Your task to perform on an android device: Show me popular videos on Youtube Image 0: 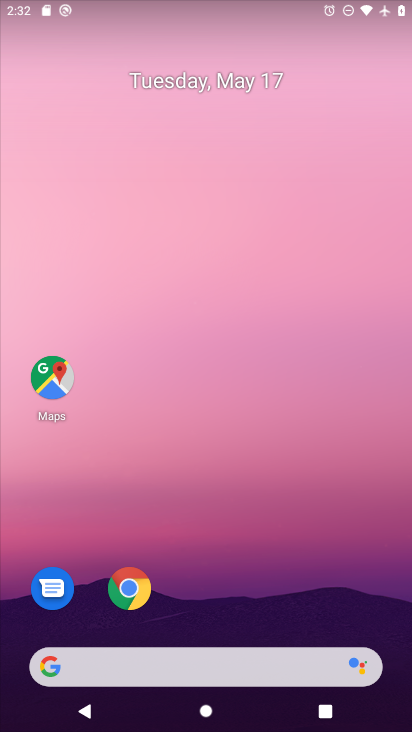
Step 0: drag from (186, 572) to (128, 82)
Your task to perform on an android device: Show me popular videos on Youtube Image 1: 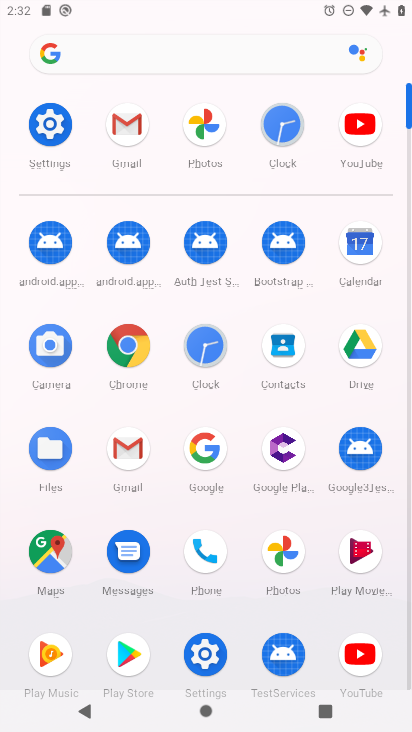
Step 1: click (352, 134)
Your task to perform on an android device: Show me popular videos on Youtube Image 2: 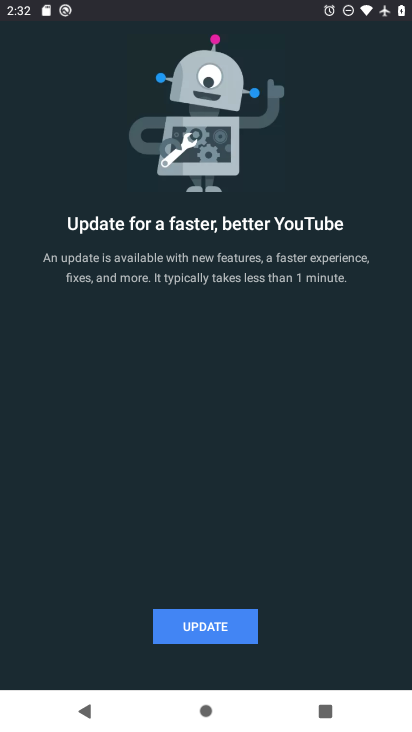
Step 2: click (200, 640)
Your task to perform on an android device: Show me popular videos on Youtube Image 3: 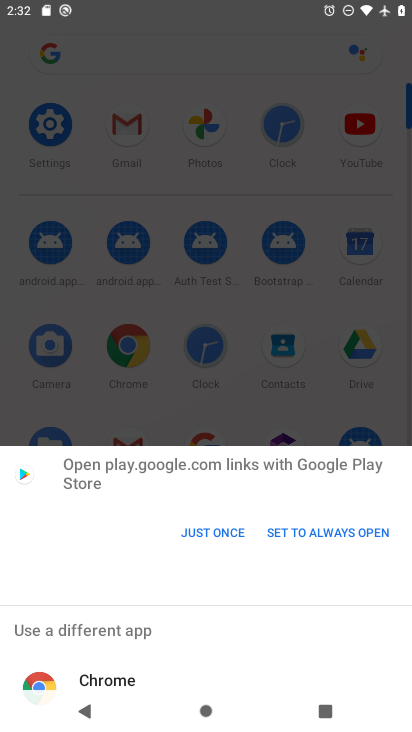
Step 3: click (212, 528)
Your task to perform on an android device: Show me popular videos on Youtube Image 4: 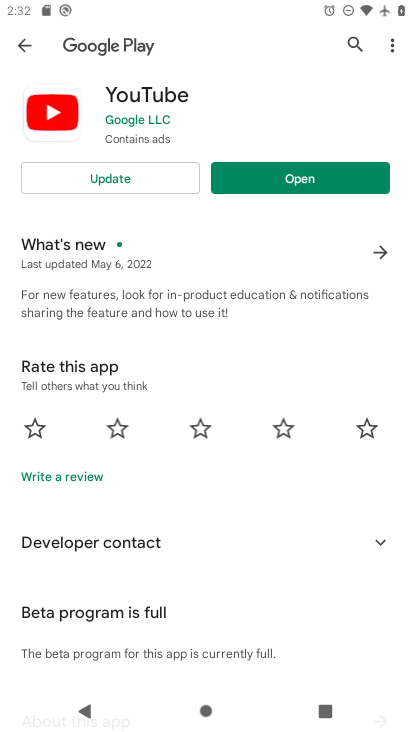
Step 4: click (112, 171)
Your task to perform on an android device: Show me popular videos on Youtube Image 5: 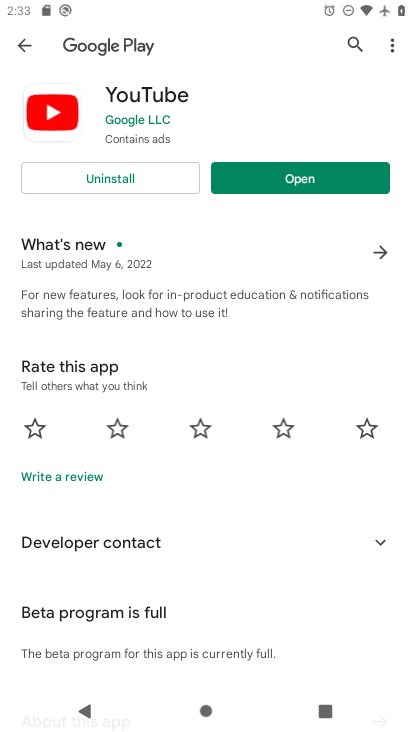
Step 5: click (224, 190)
Your task to perform on an android device: Show me popular videos on Youtube Image 6: 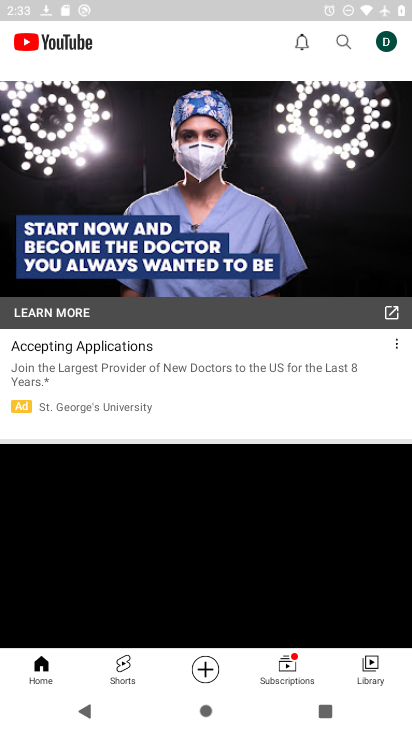
Step 6: drag from (89, 142) to (104, 347)
Your task to perform on an android device: Show me popular videos on Youtube Image 7: 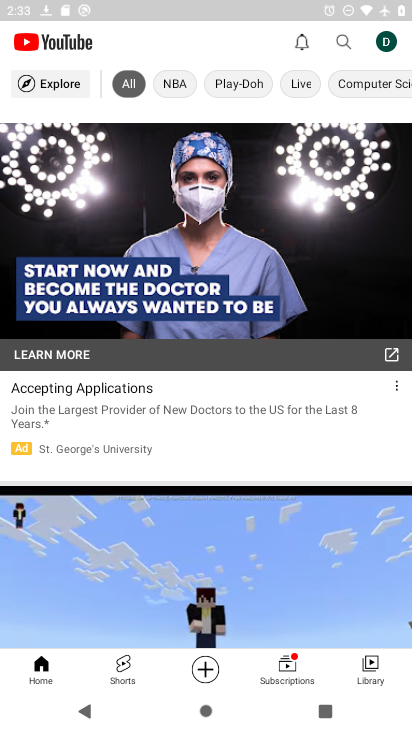
Step 7: click (57, 73)
Your task to perform on an android device: Show me popular videos on Youtube Image 8: 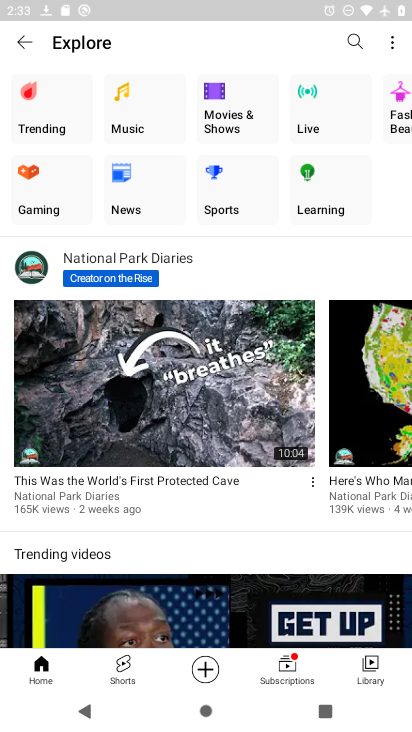
Step 8: click (49, 96)
Your task to perform on an android device: Show me popular videos on Youtube Image 9: 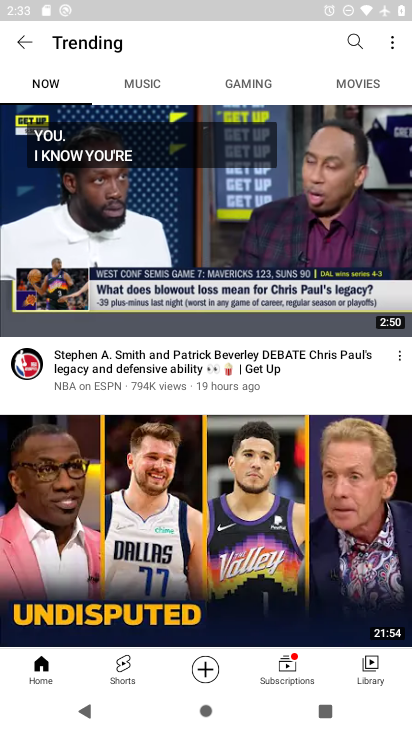
Step 9: task complete